Your task to perform on an android device: Open the web browser Image 0: 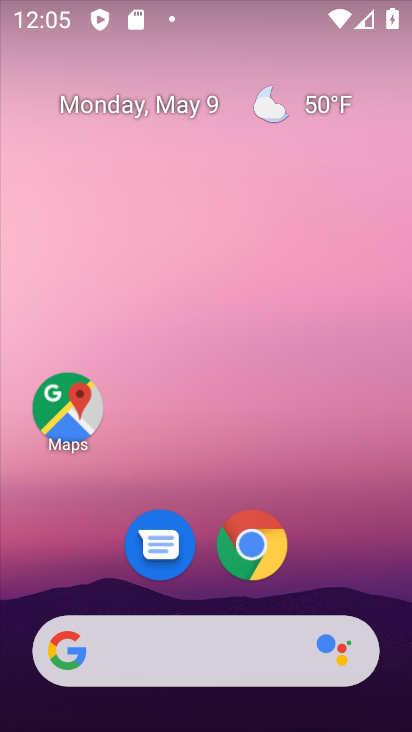
Step 0: click (238, 564)
Your task to perform on an android device: Open the web browser Image 1: 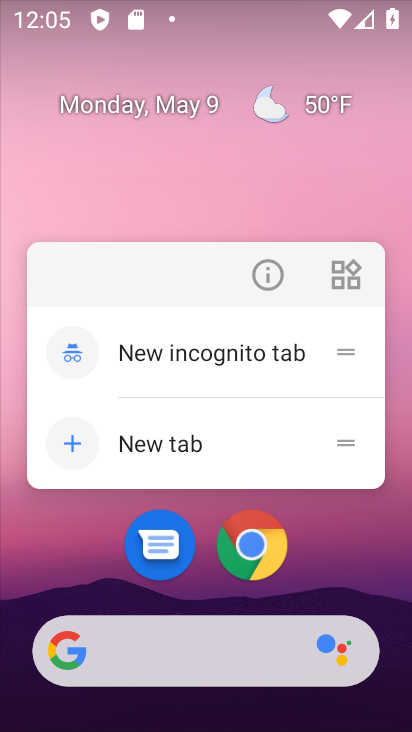
Step 1: click (245, 565)
Your task to perform on an android device: Open the web browser Image 2: 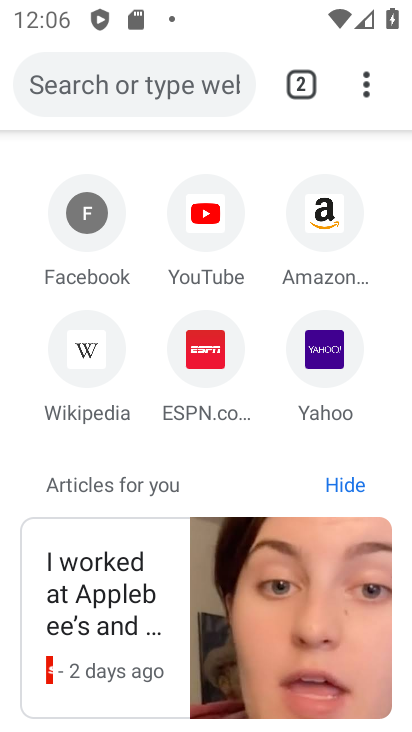
Step 2: task complete